Your task to perform on an android device: Open Amazon Image 0: 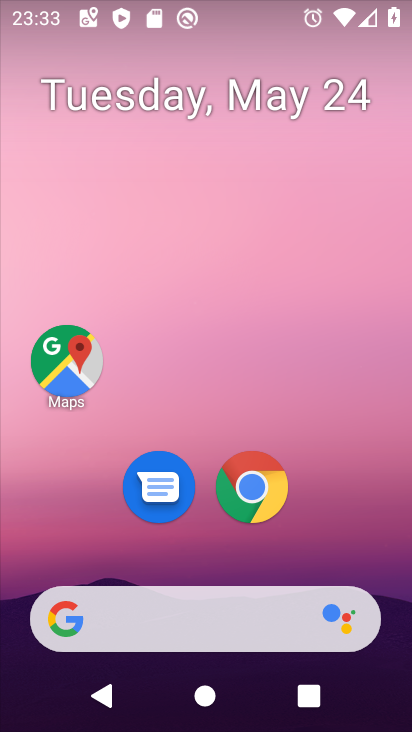
Step 0: click (252, 486)
Your task to perform on an android device: Open Amazon Image 1: 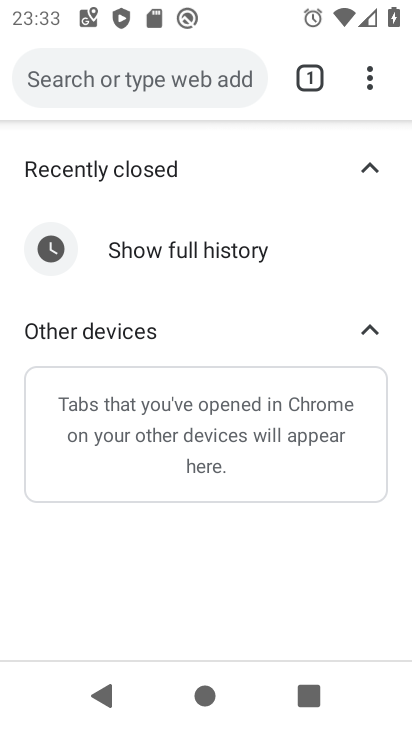
Step 1: click (300, 88)
Your task to perform on an android device: Open Amazon Image 2: 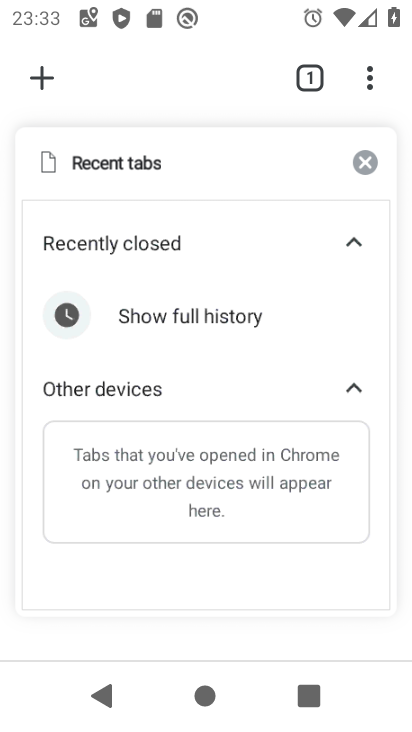
Step 2: click (47, 67)
Your task to perform on an android device: Open Amazon Image 3: 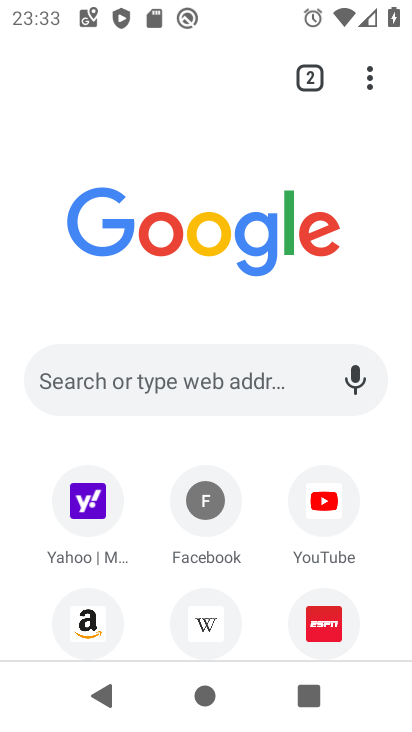
Step 3: click (85, 624)
Your task to perform on an android device: Open Amazon Image 4: 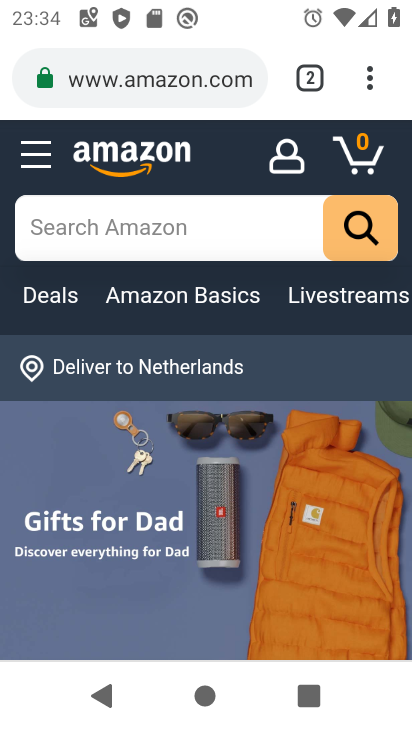
Step 4: task complete